Your task to perform on an android device: open app "Facebook Lite" Image 0: 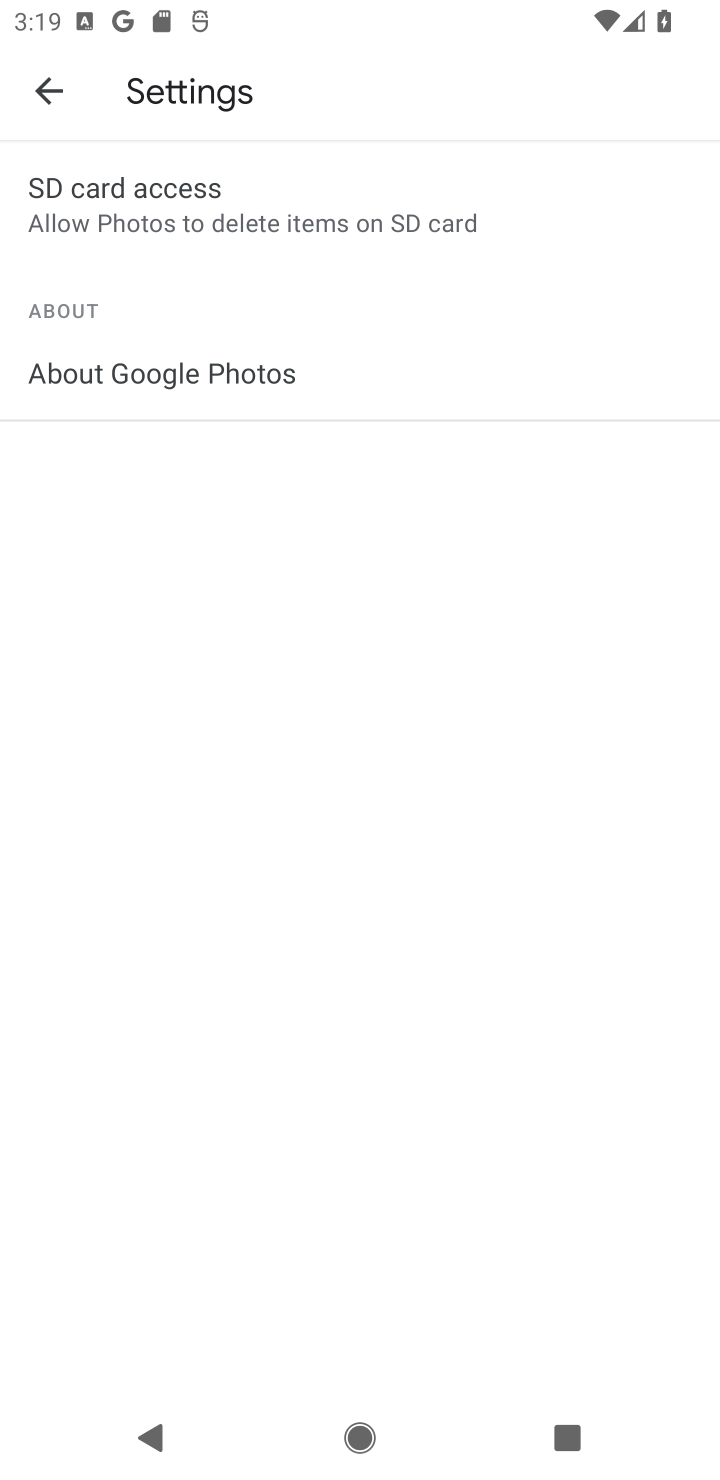
Step 0: press home button
Your task to perform on an android device: open app "Facebook Lite" Image 1: 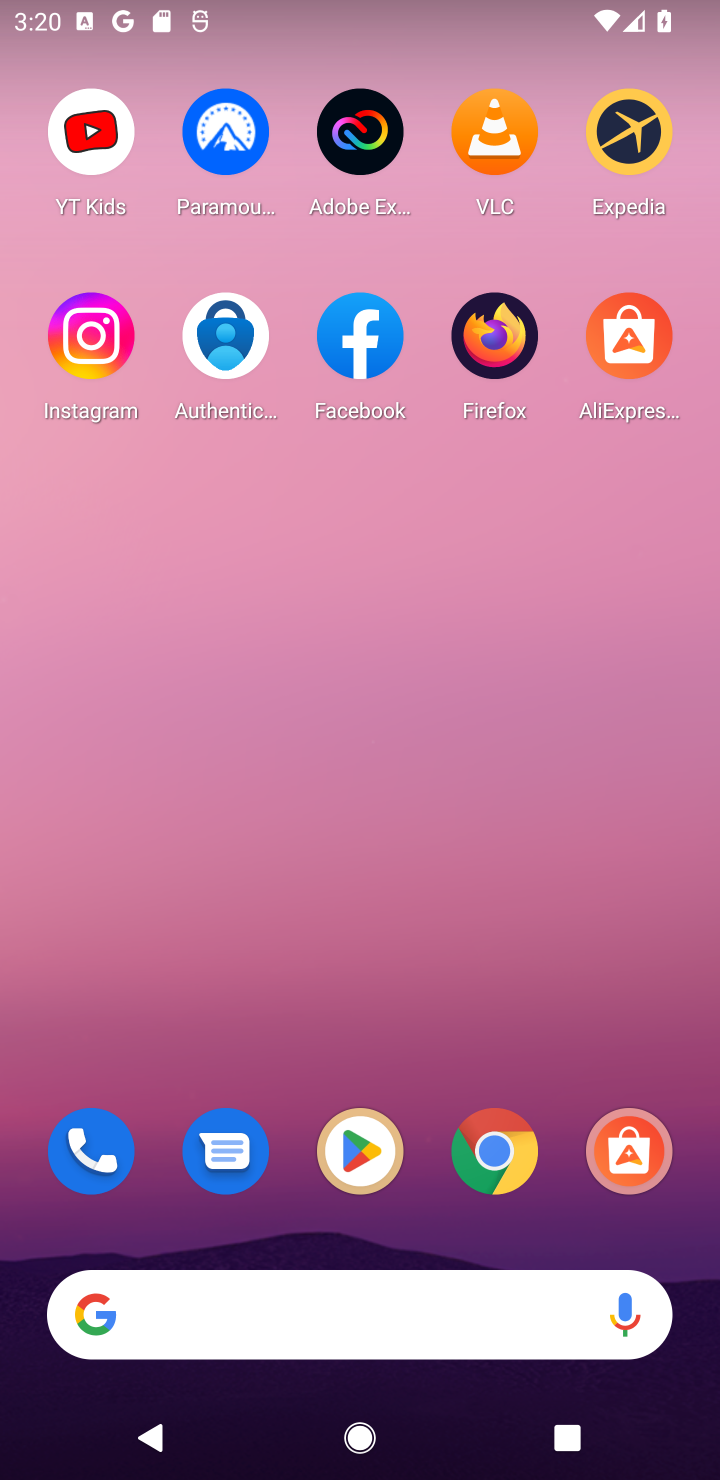
Step 1: click (372, 1161)
Your task to perform on an android device: open app "Facebook Lite" Image 2: 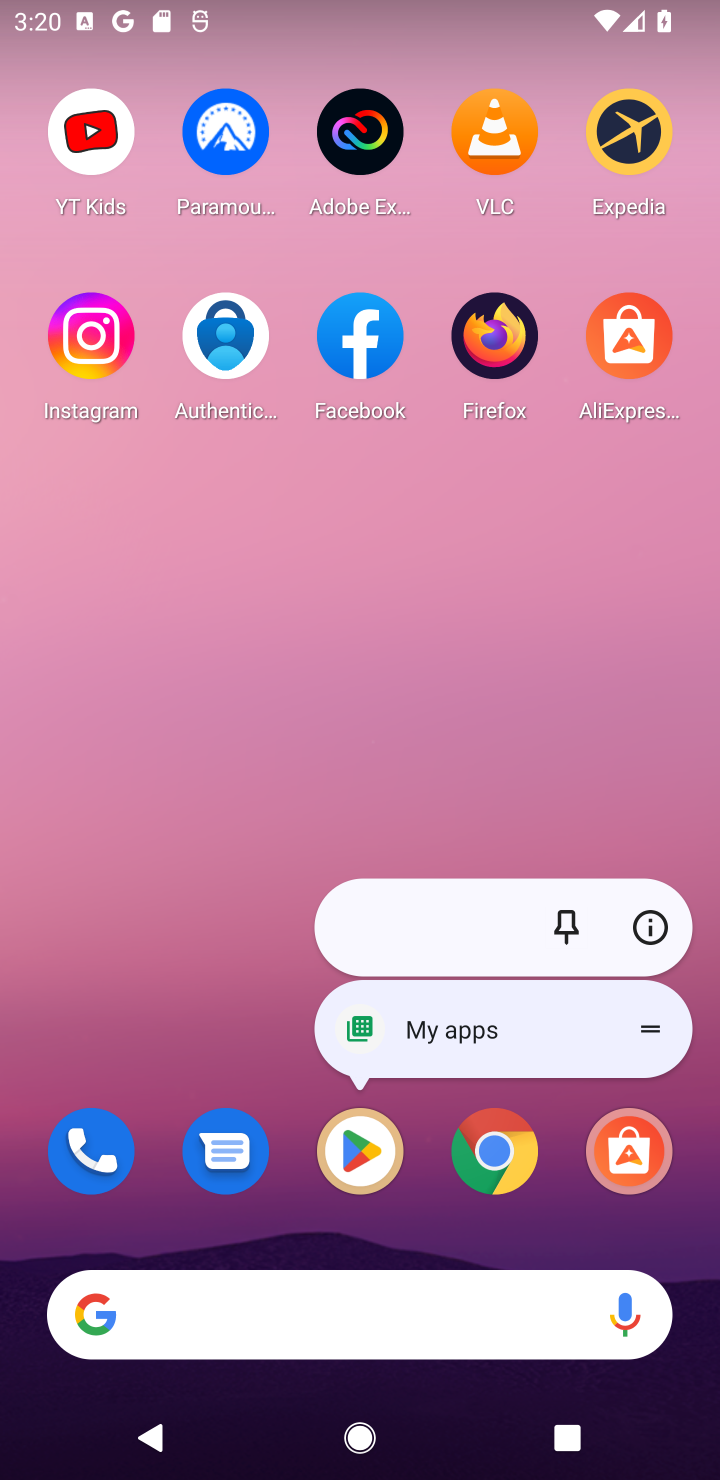
Step 2: click (365, 1156)
Your task to perform on an android device: open app "Facebook Lite" Image 3: 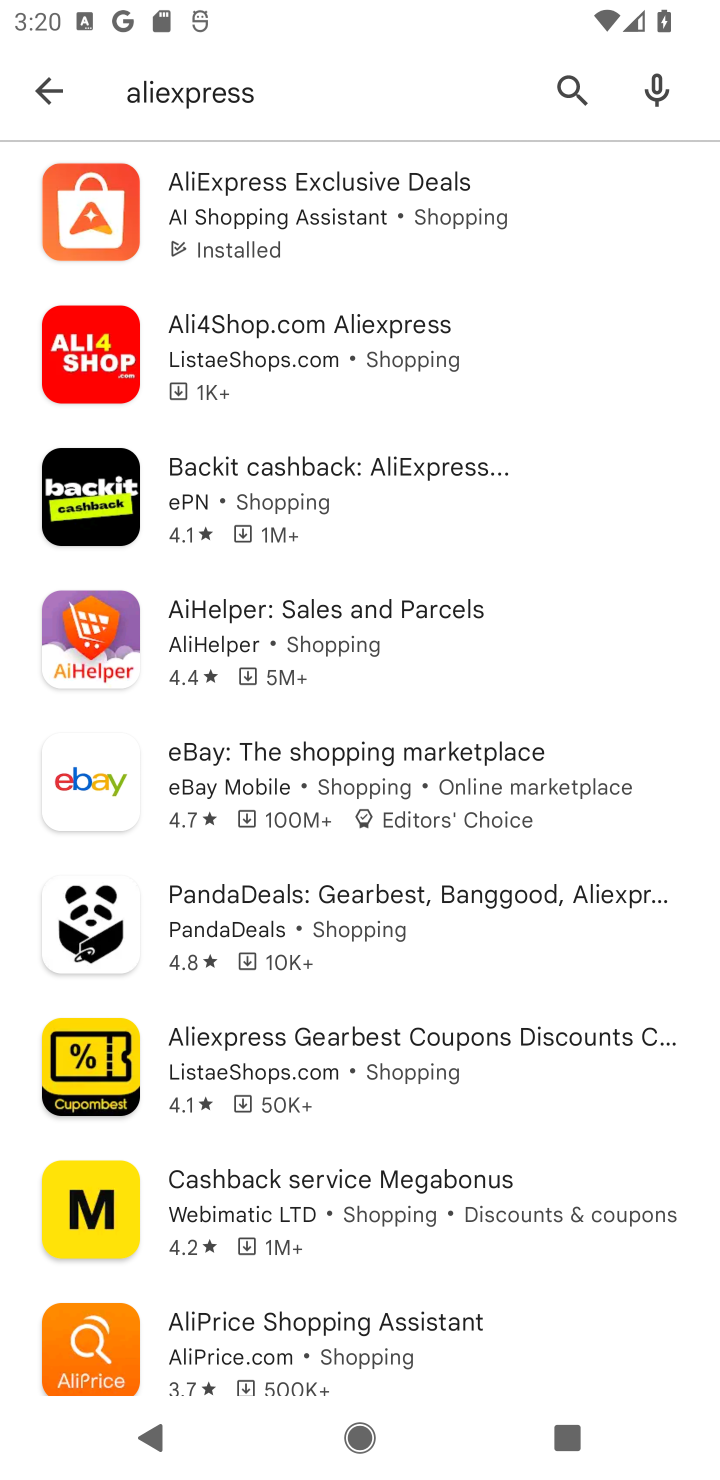
Step 3: click (568, 82)
Your task to perform on an android device: open app "Facebook Lite" Image 4: 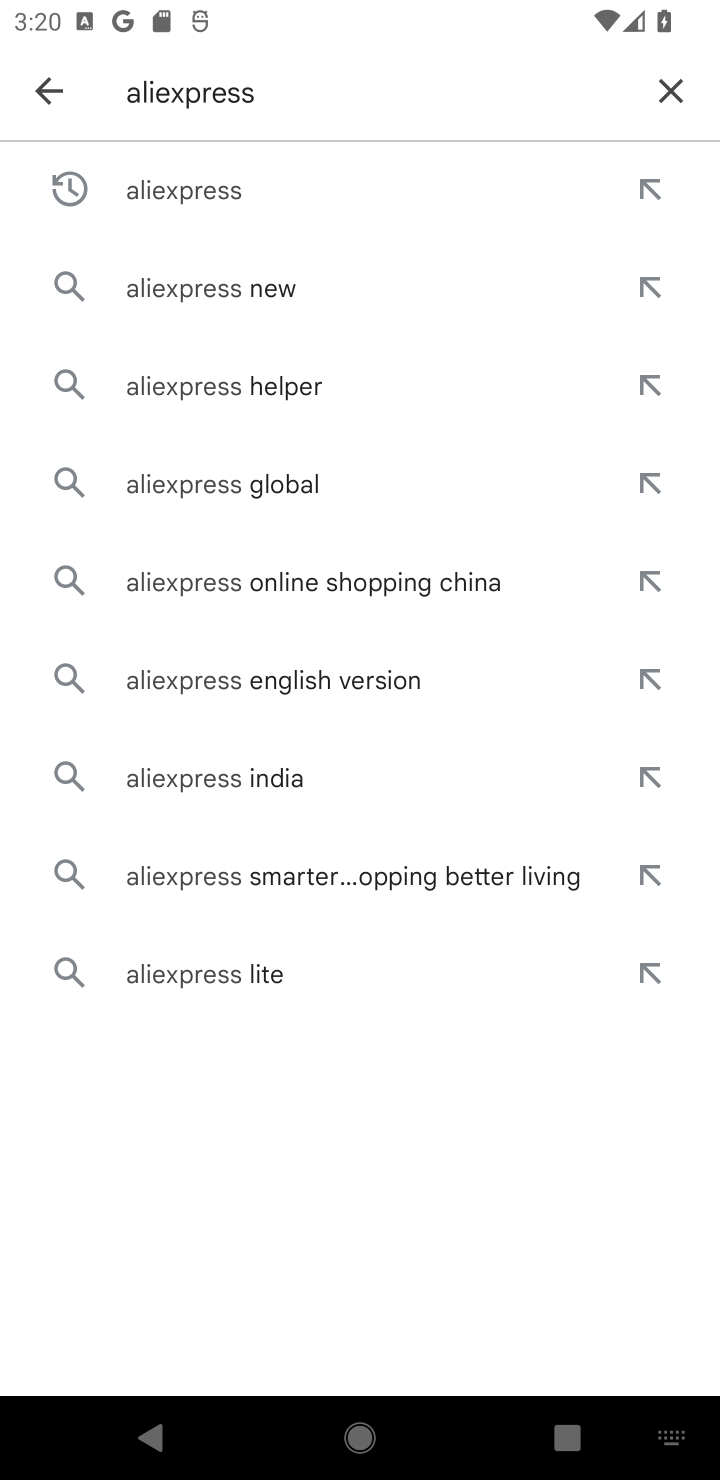
Step 4: click (669, 87)
Your task to perform on an android device: open app "Facebook Lite" Image 5: 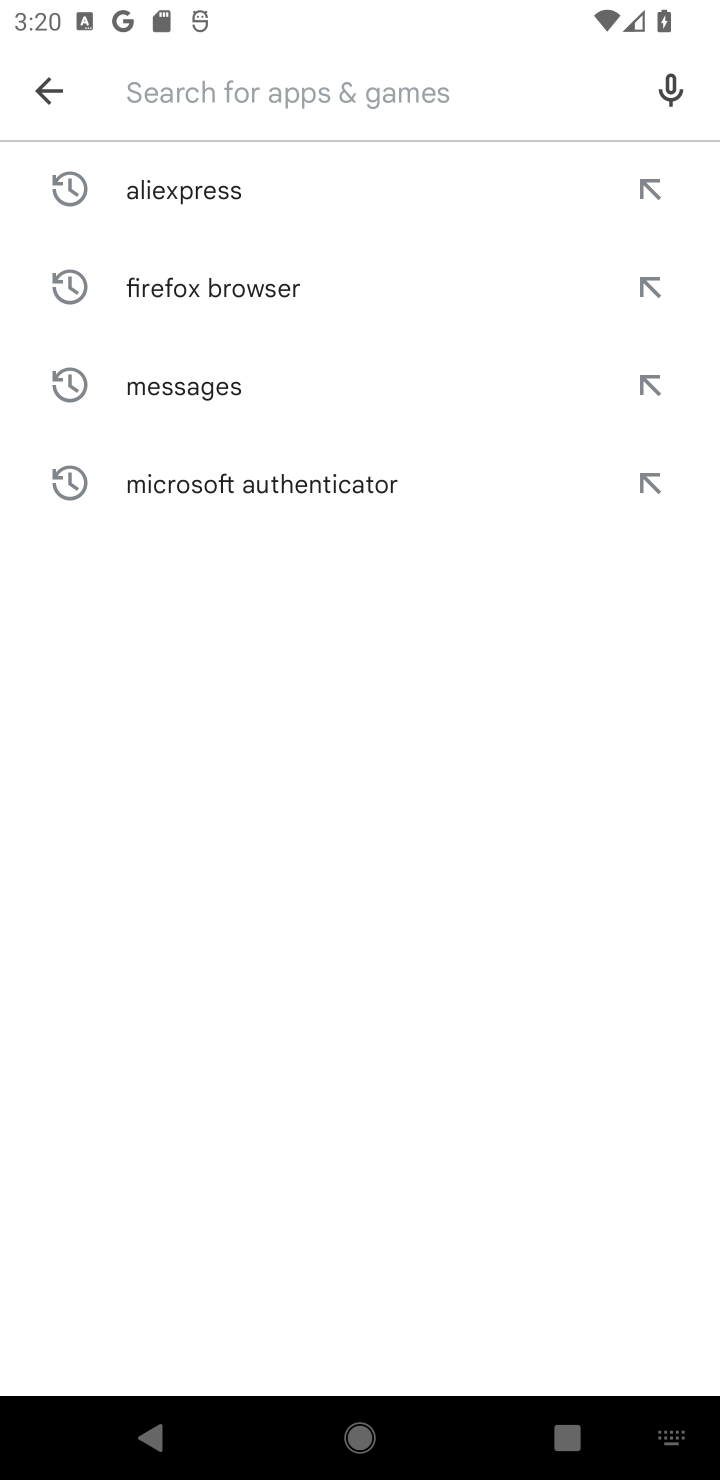
Step 5: type "Facebook Lite"
Your task to perform on an android device: open app "Facebook Lite" Image 6: 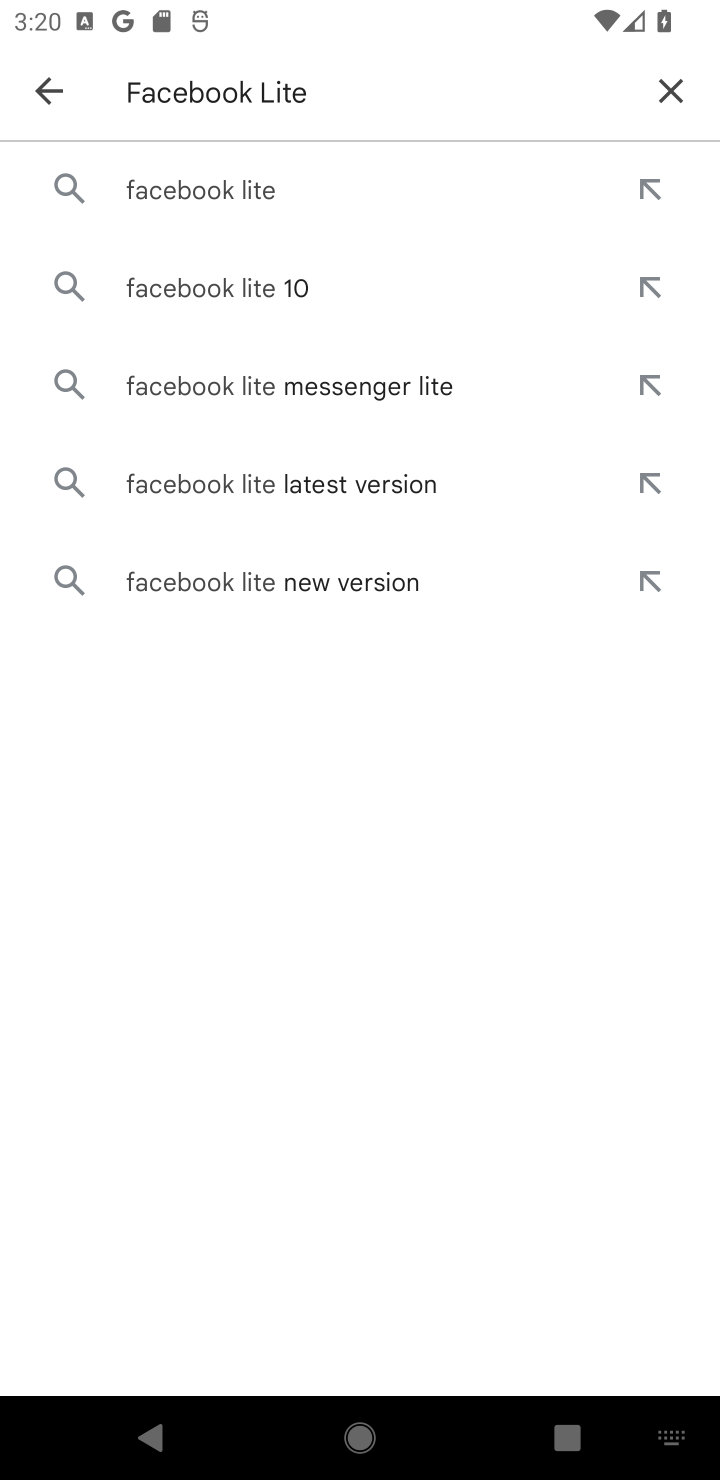
Step 6: click (197, 187)
Your task to perform on an android device: open app "Facebook Lite" Image 7: 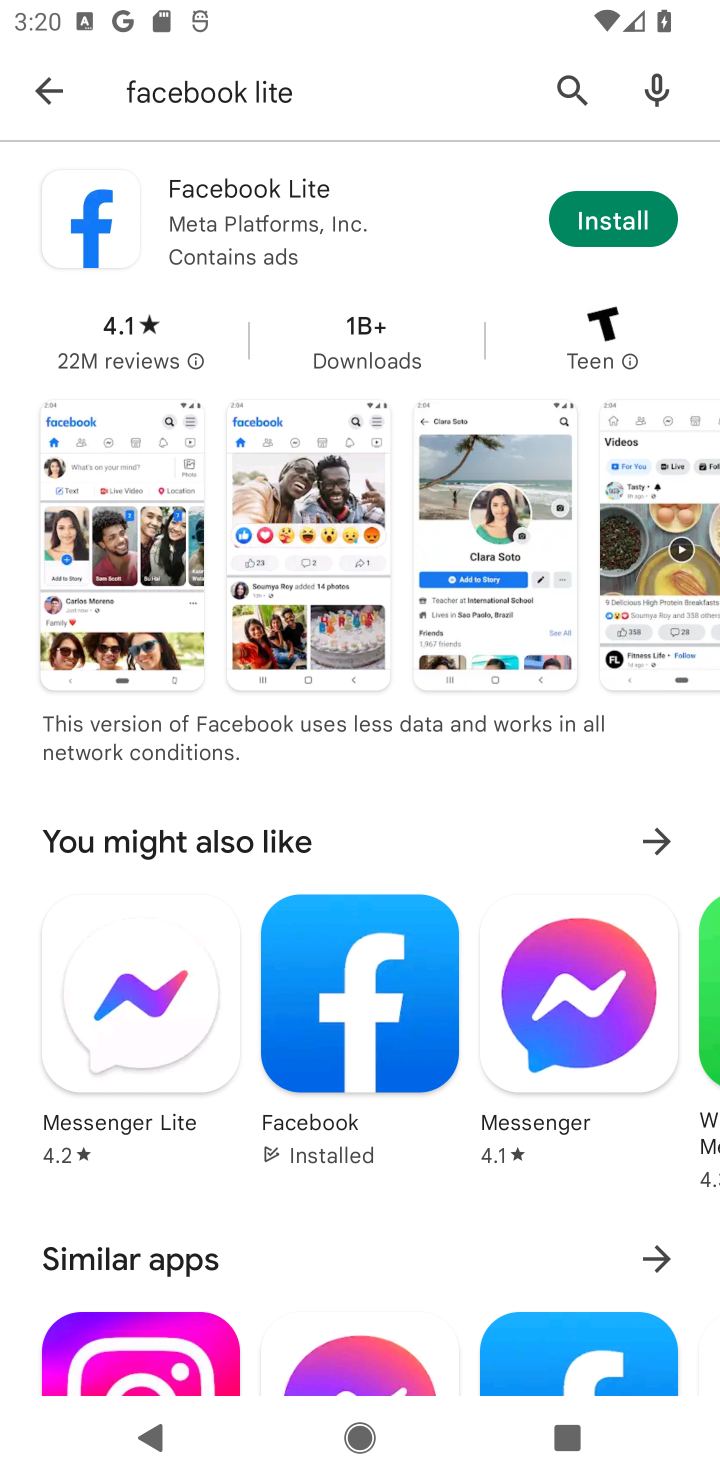
Step 7: task complete